Your task to perform on an android device: Open calendar and show me the third week of next month Image 0: 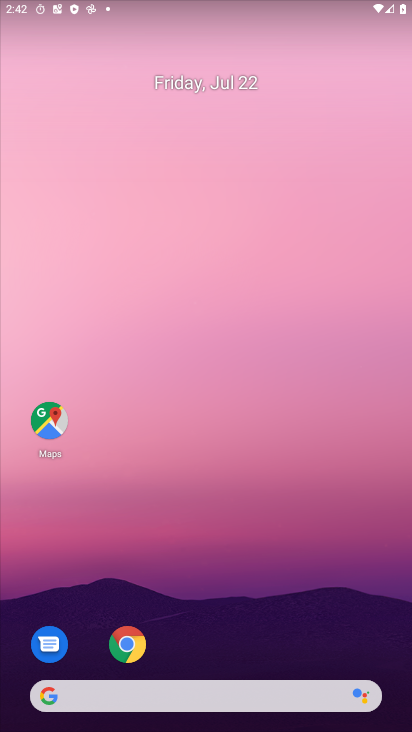
Step 0: drag from (211, 707) to (308, 314)
Your task to perform on an android device: Open calendar and show me the third week of next month Image 1: 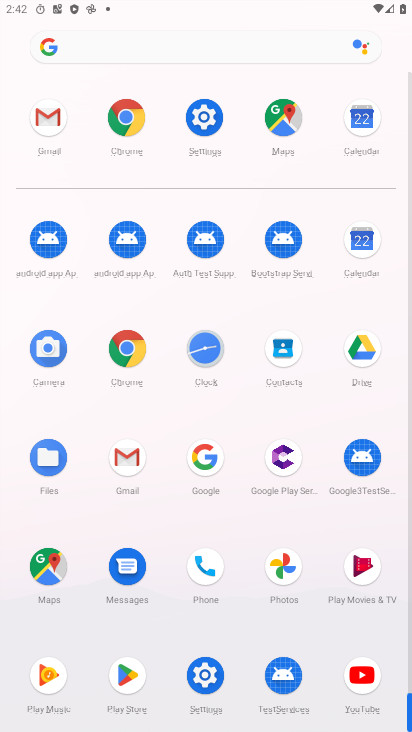
Step 1: click (377, 138)
Your task to perform on an android device: Open calendar and show me the third week of next month Image 2: 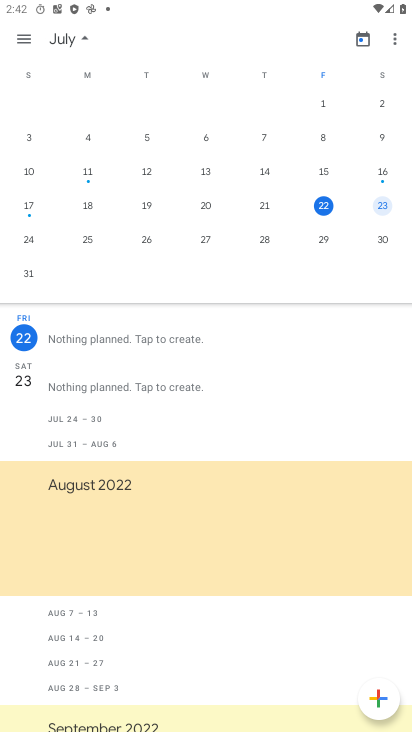
Step 2: click (69, 38)
Your task to perform on an android device: Open calendar and show me the third week of next month Image 3: 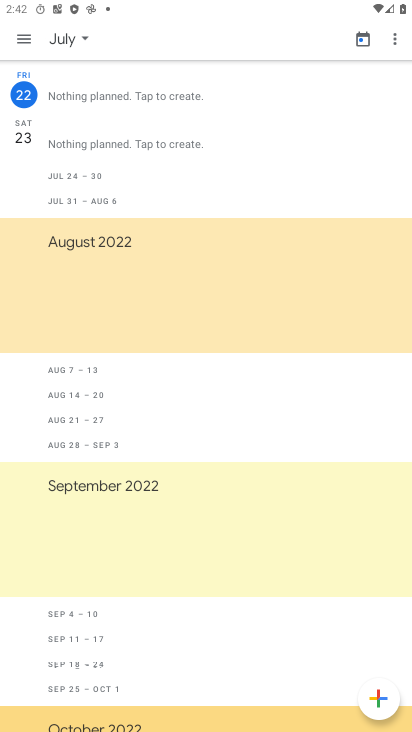
Step 3: click (76, 48)
Your task to perform on an android device: Open calendar and show me the third week of next month Image 4: 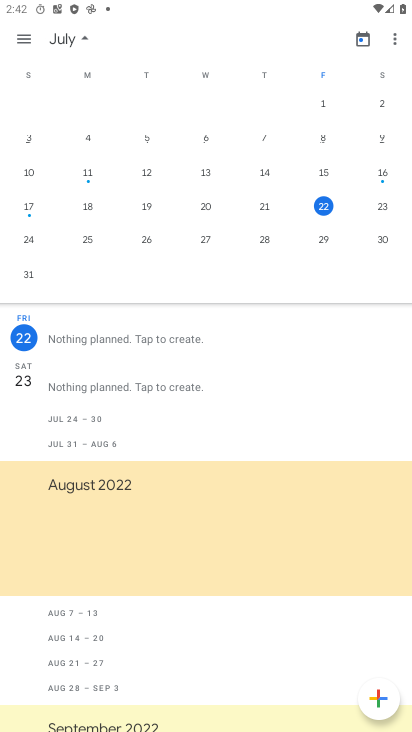
Step 4: drag from (352, 181) to (13, 204)
Your task to perform on an android device: Open calendar and show me the third week of next month Image 5: 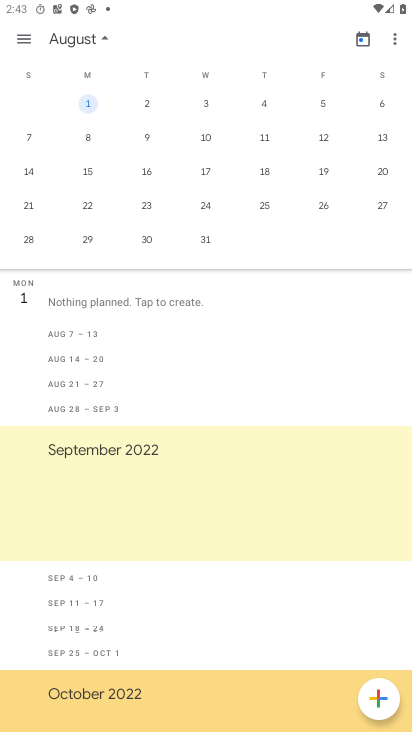
Step 5: click (92, 180)
Your task to perform on an android device: Open calendar and show me the third week of next month Image 6: 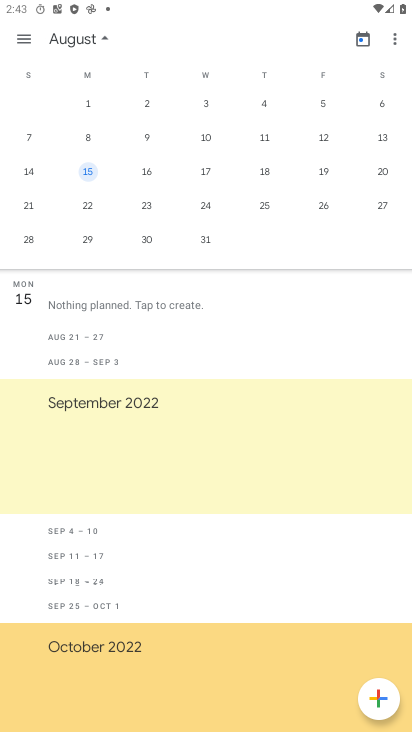
Step 6: task complete